Your task to perform on an android device: set an alarm Image 0: 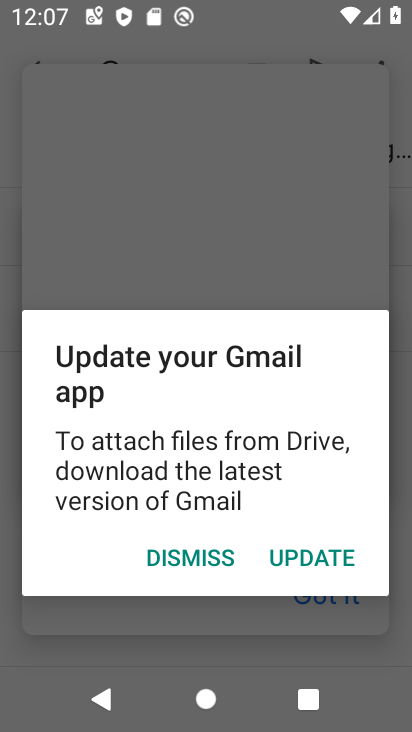
Step 0: press home button
Your task to perform on an android device: set an alarm Image 1: 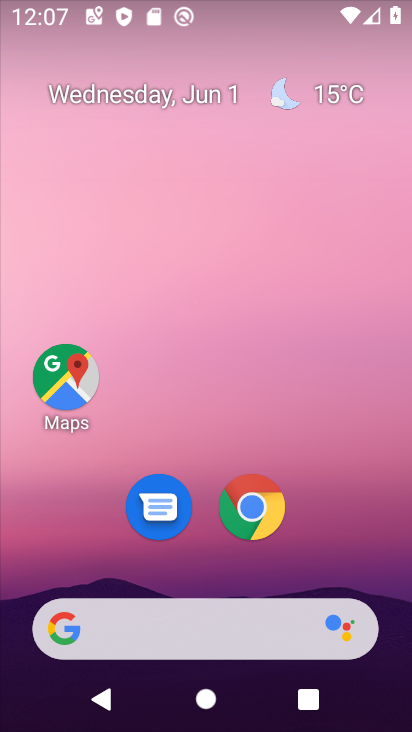
Step 1: drag from (341, 547) to (175, 179)
Your task to perform on an android device: set an alarm Image 2: 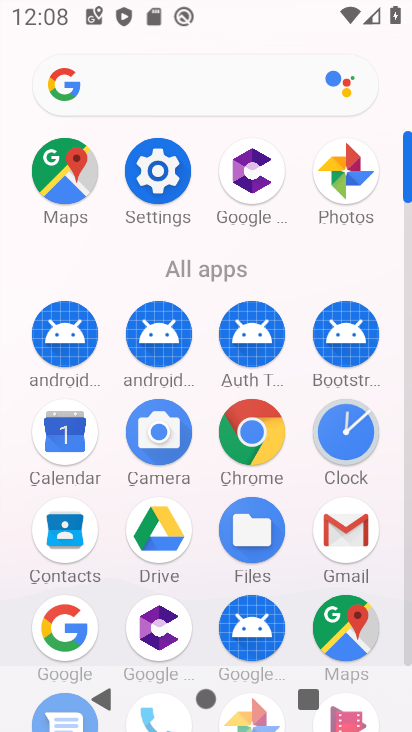
Step 2: click (345, 431)
Your task to perform on an android device: set an alarm Image 3: 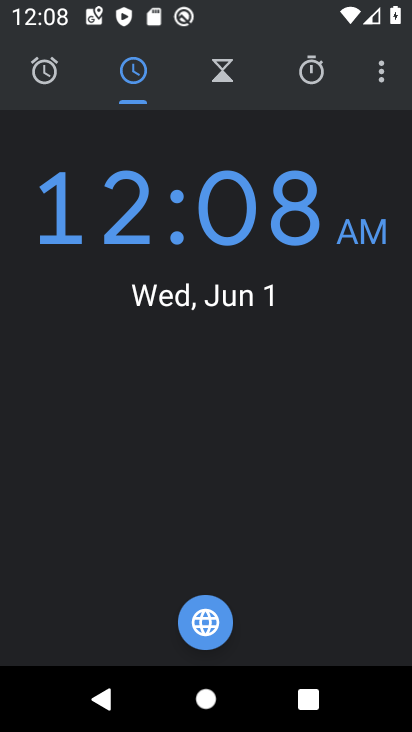
Step 3: click (46, 73)
Your task to perform on an android device: set an alarm Image 4: 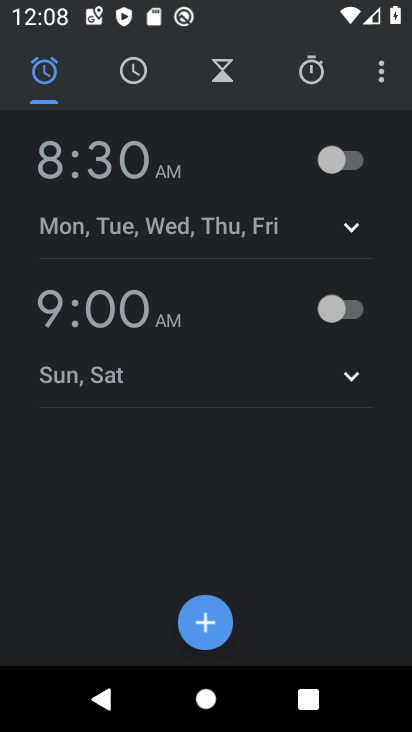
Step 4: click (200, 616)
Your task to perform on an android device: set an alarm Image 5: 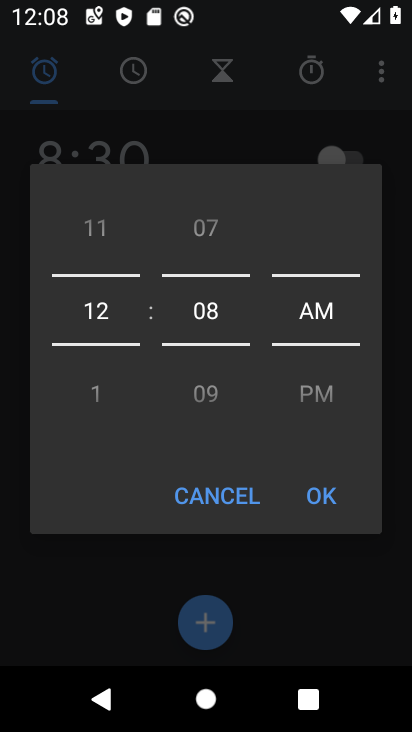
Step 5: click (100, 239)
Your task to perform on an android device: set an alarm Image 6: 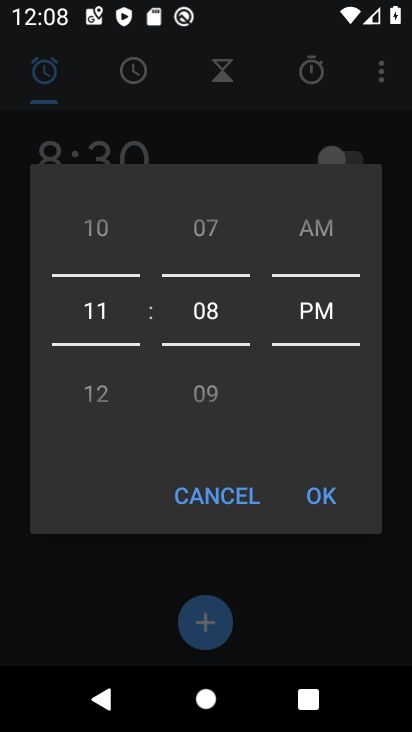
Step 6: click (100, 239)
Your task to perform on an android device: set an alarm Image 7: 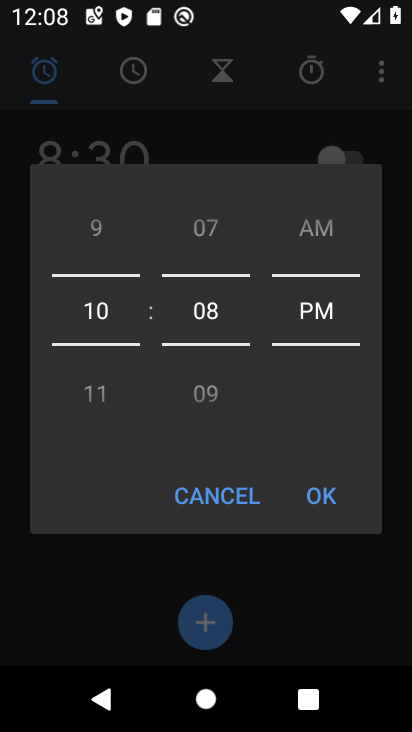
Step 7: click (100, 239)
Your task to perform on an android device: set an alarm Image 8: 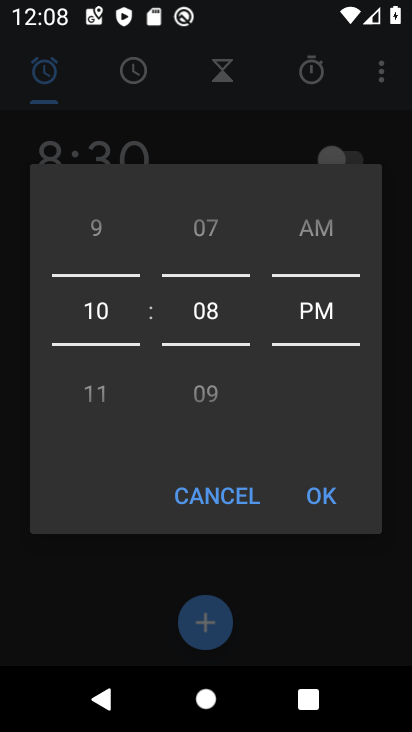
Step 8: click (100, 239)
Your task to perform on an android device: set an alarm Image 9: 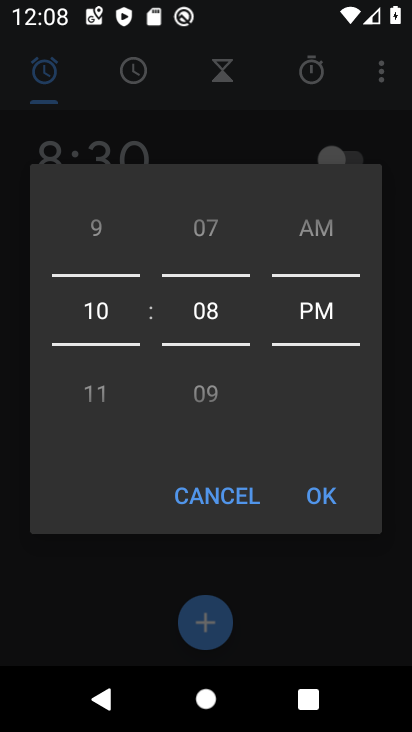
Step 9: click (209, 241)
Your task to perform on an android device: set an alarm Image 10: 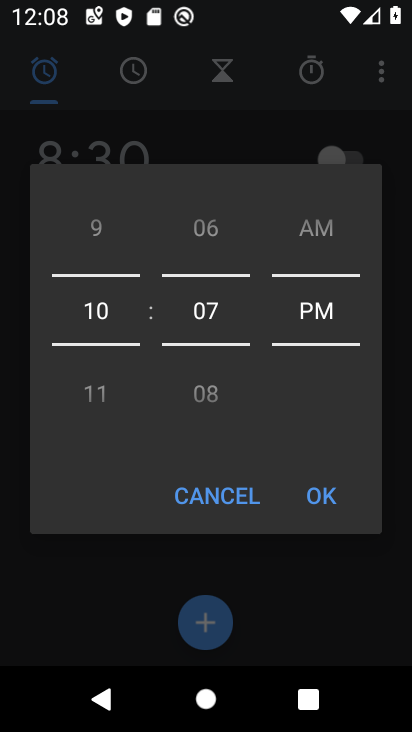
Step 10: click (209, 241)
Your task to perform on an android device: set an alarm Image 11: 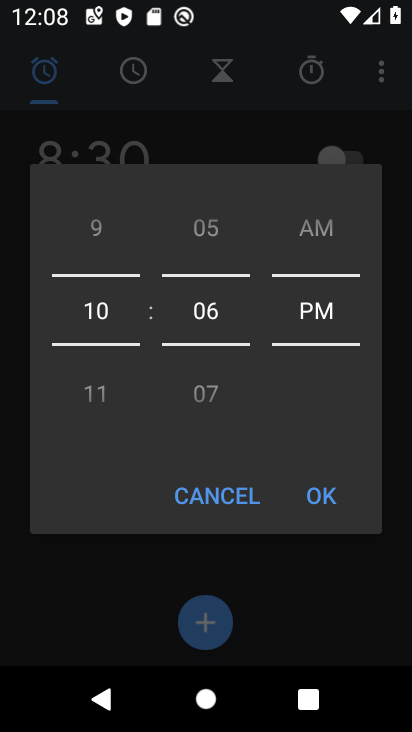
Step 11: click (209, 241)
Your task to perform on an android device: set an alarm Image 12: 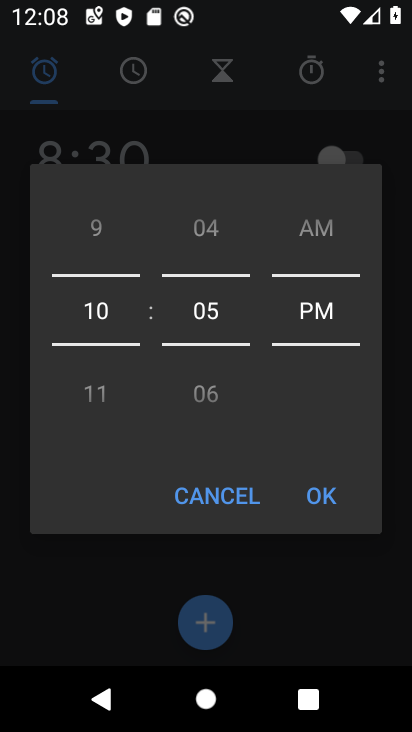
Step 12: click (316, 241)
Your task to perform on an android device: set an alarm Image 13: 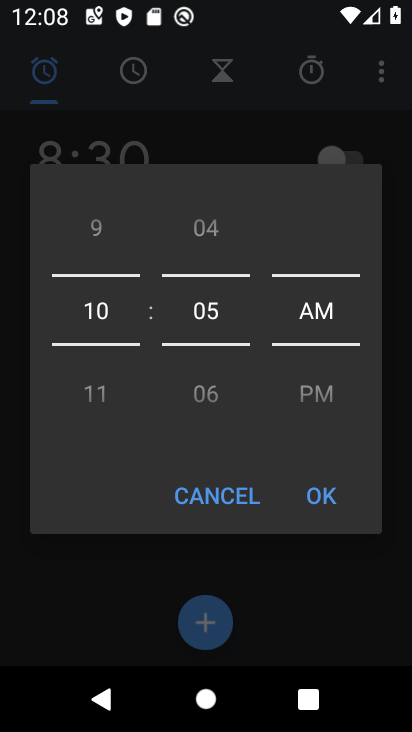
Step 13: click (325, 500)
Your task to perform on an android device: set an alarm Image 14: 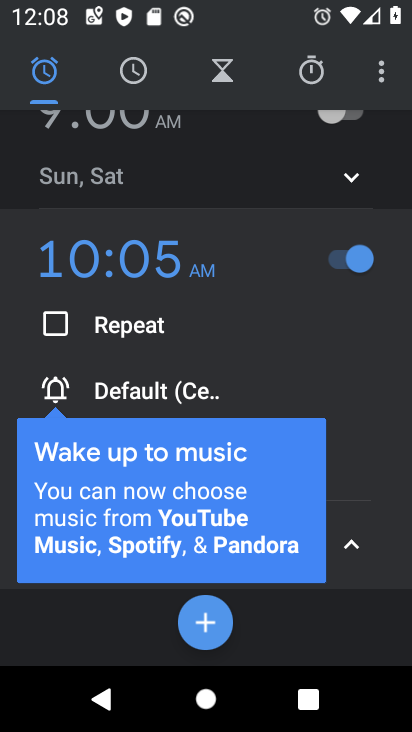
Step 14: click (350, 541)
Your task to perform on an android device: set an alarm Image 15: 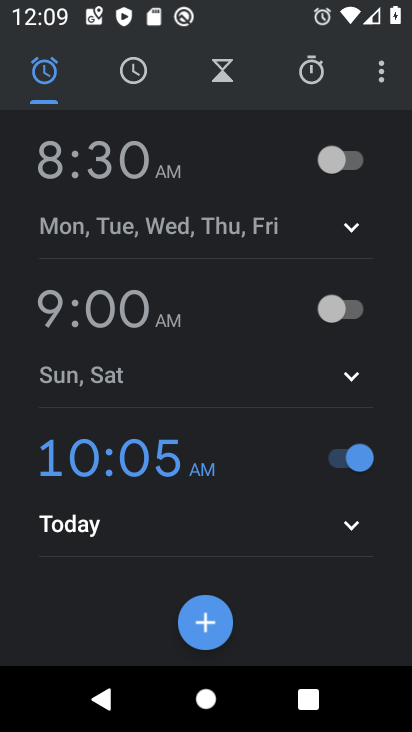
Step 15: task complete